Your task to perform on an android device: open device folders in google photos Image 0: 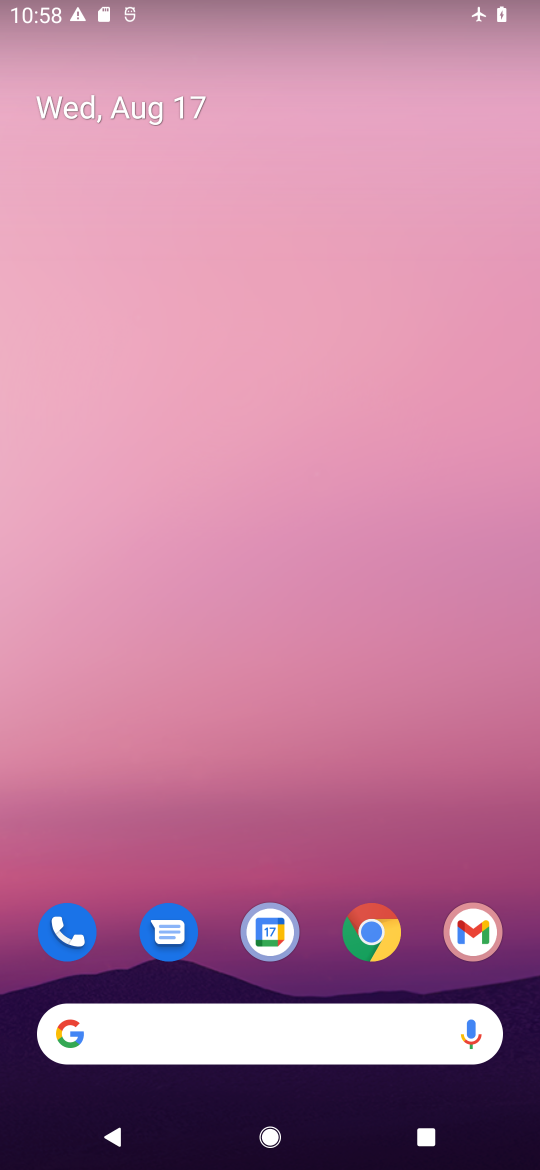
Step 0: drag from (248, 821) to (286, 190)
Your task to perform on an android device: open device folders in google photos Image 1: 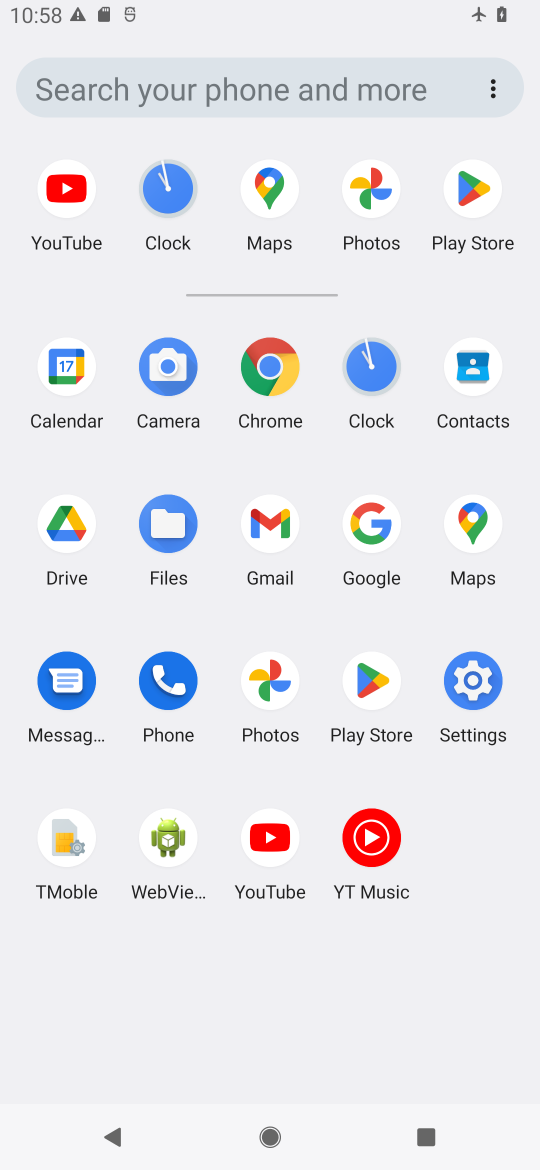
Step 1: click (363, 206)
Your task to perform on an android device: open device folders in google photos Image 2: 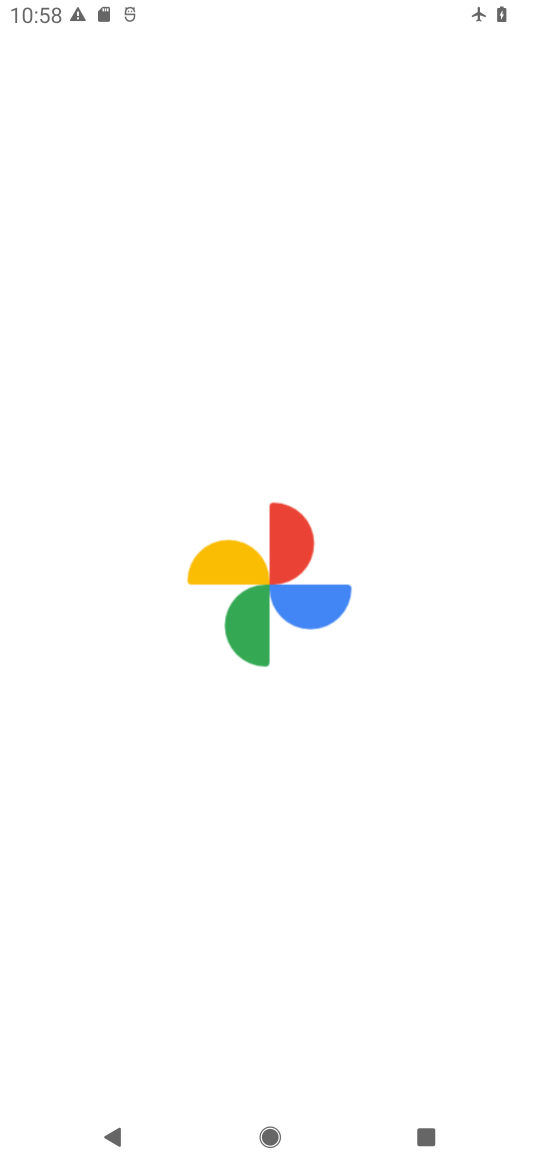
Step 2: task complete